Your task to perform on an android device: Is it going to rain tomorrow? Image 0: 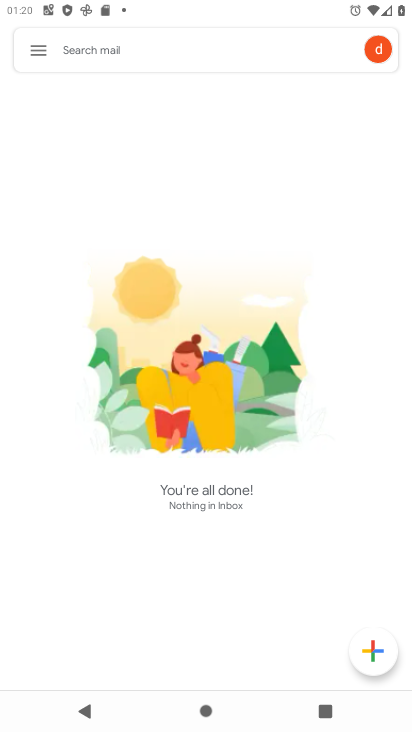
Step 0: press home button
Your task to perform on an android device: Is it going to rain tomorrow? Image 1: 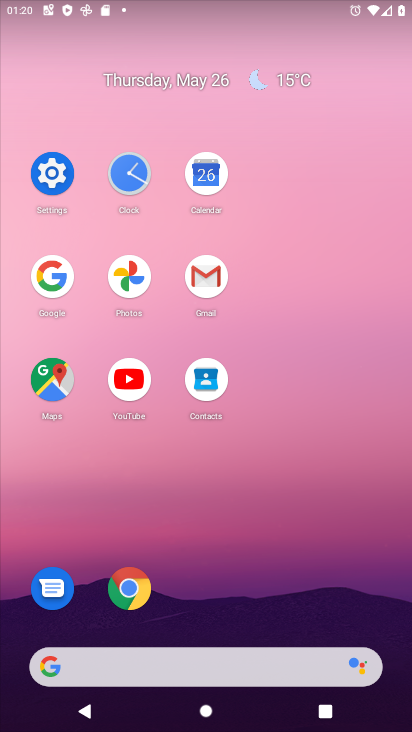
Step 1: click (55, 270)
Your task to perform on an android device: Is it going to rain tomorrow? Image 2: 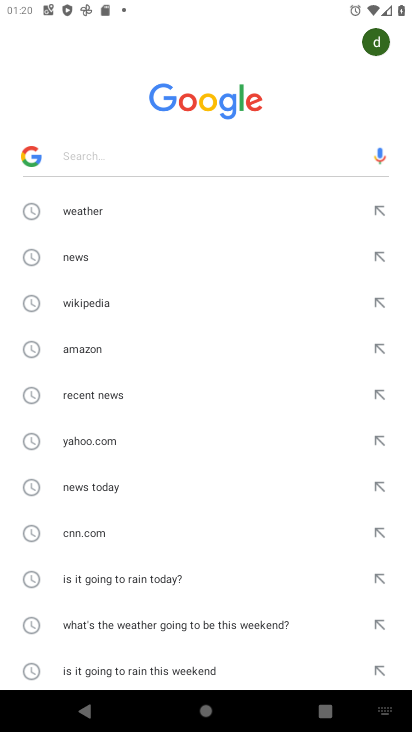
Step 2: click (113, 207)
Your task to perform on an android device: Is it going to rain tomorrow? Image 3: 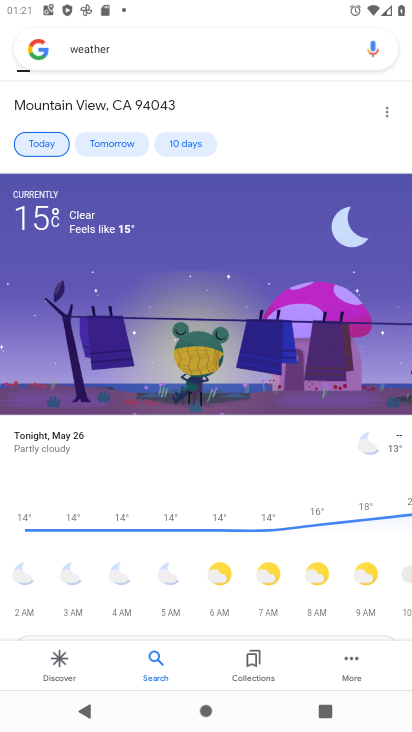
Step 3: click (100, 141)
Your task to perform on an android device: Is it going to rain tomorrow? Image 4: 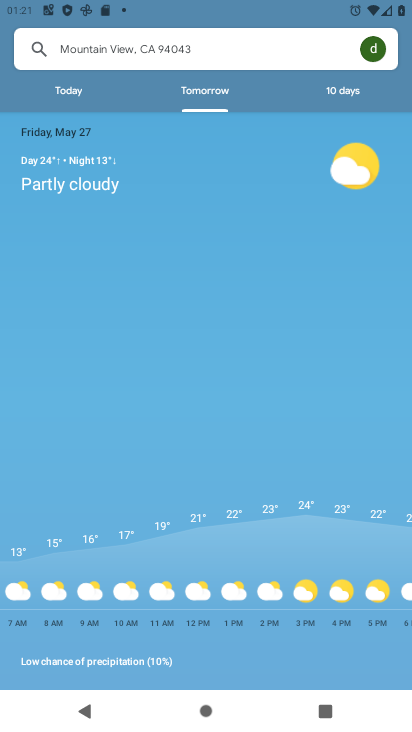
Step 4: task complete